Your task to perform on an android device: delete the emails in spam in the gmail app Image 0: 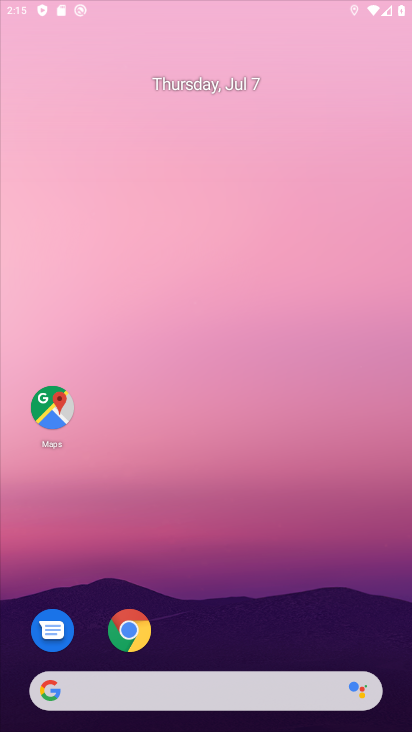
Step 0: drag from (186, 495) to (276, 150)
Your task to perform on an android device: delete the emails in spam in the gmail app Image 1: 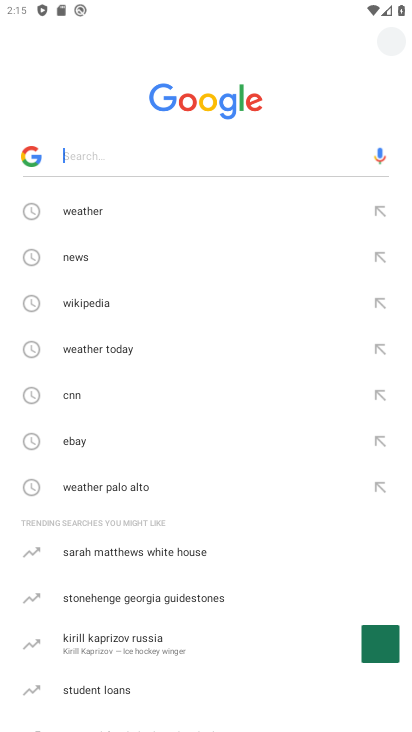
Step 1: press home button
Your task to perform on an android device: delete the emails in spam in the gmail app Image 2: 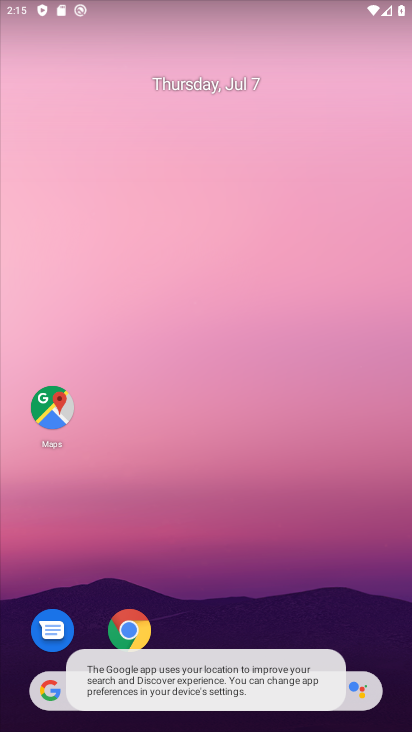
Step 2: drag from (216, 548) to (280, 182)
Your task to perform on an android device: delete the emails in spam in the gmail app Image 3: 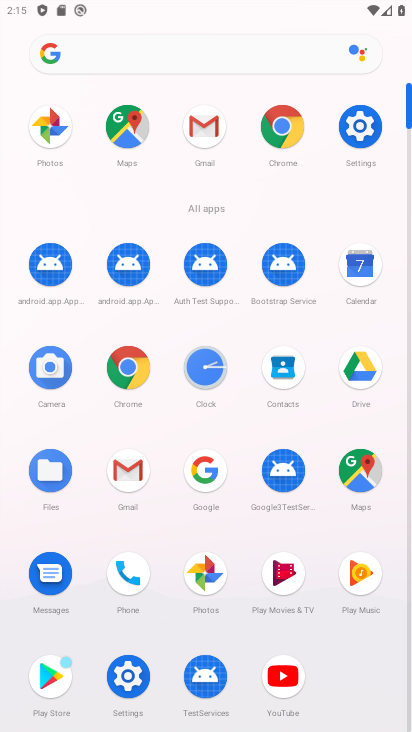
Step 3: click (118, 481)
Your task to perform on an android device: delete the emails in spam in the gmail app Image 4: 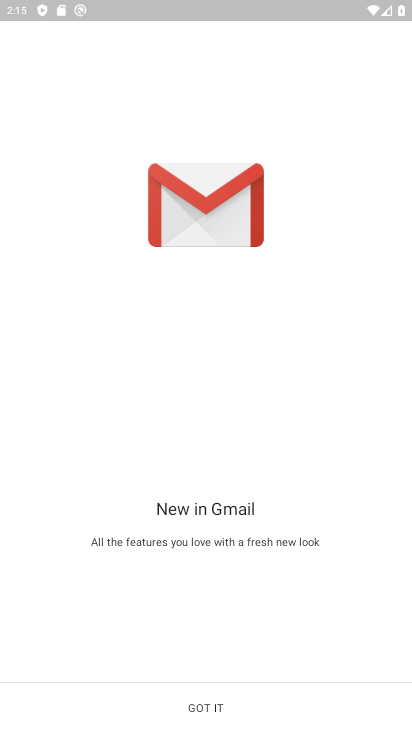
Step 4: click (185, 705)
Your task to perform on an android device: delete the emails in spam in the gmail app Image 5: 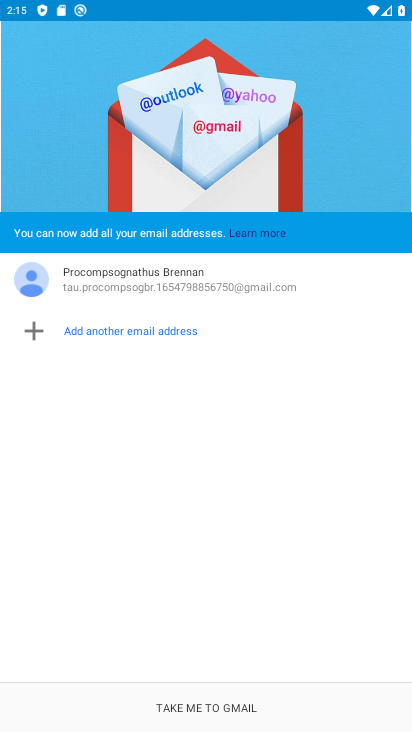
Step 5: click (216, 705)
Your task to perform on an android device: delete the emails in spam in the gmail app Image 6: 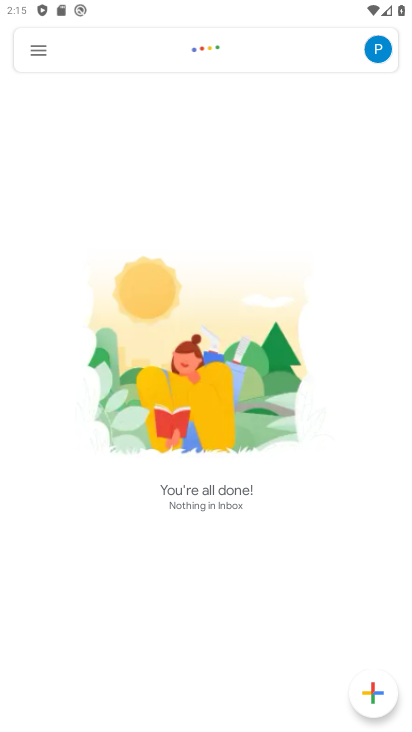
Step 6: click (39, 47)
Your task to perform on an android device: delete the emails in spam in the gmail app Image 7: 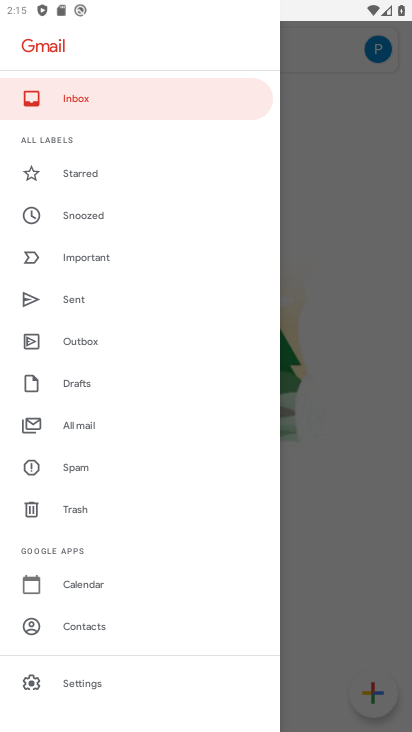
Step 7: click (90, 465)
Your task to perform on an android device: delete the emails in spam in the gmail app Image 8: 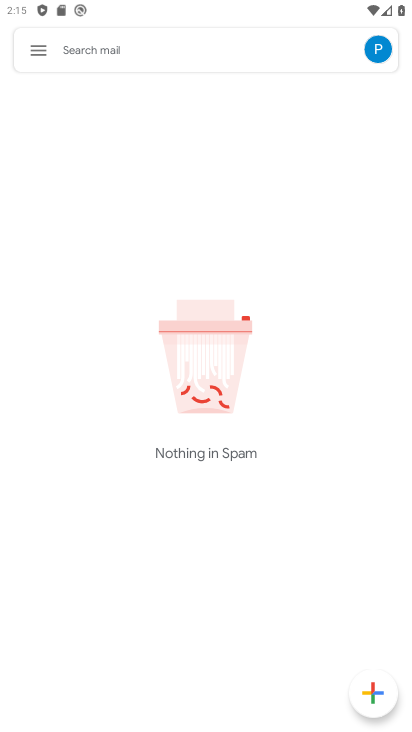
Step 8: task complete